Your task to perform on an android device: Open Chrome and go to the settings page Image 0: 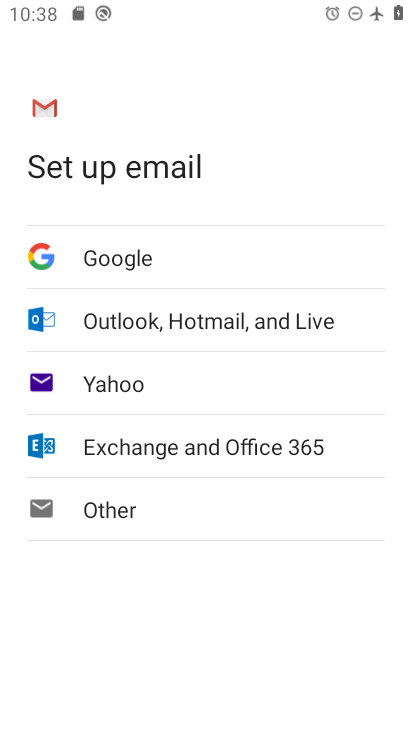
Step 0: task complete